Your task to perform on an android device: turn on translation in the chrome app Image 0: 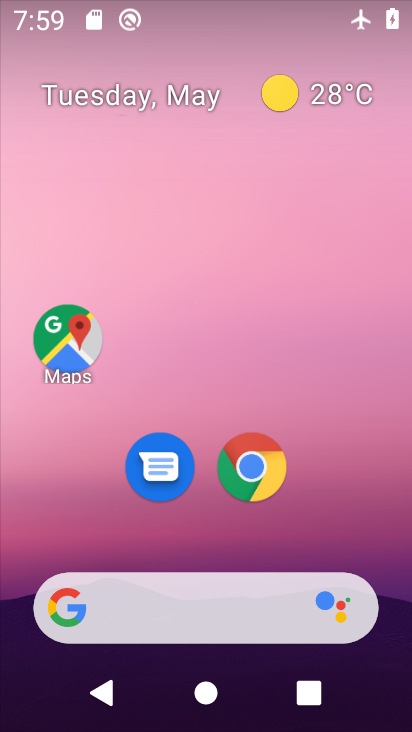
Step 0: click (261, 465)
Your task to perform on an android device: turn on translation in the chrome app Image 1: 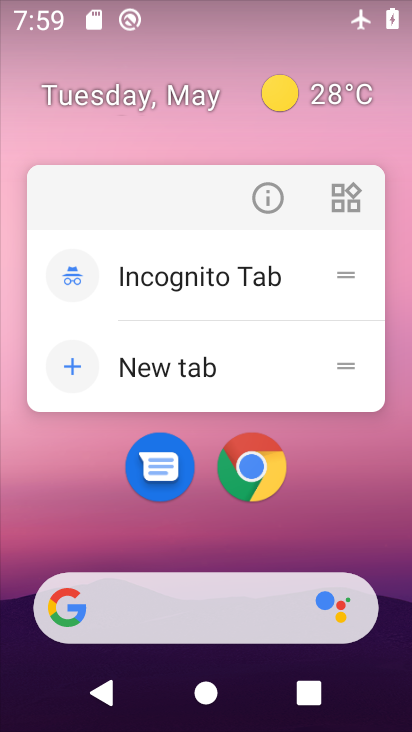
Step 1: click (263, 457)
Your task to perform on an android device: turn on translation in the chrome app Image 2: 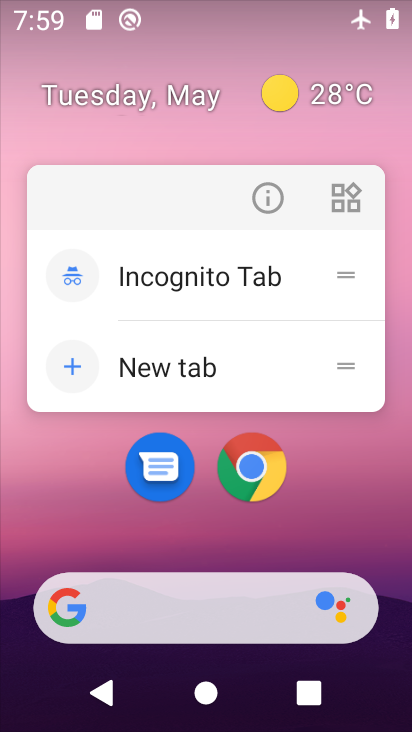
Step 2: click (265, 466)
Your task to perform on an android device: turn on translation in the chrome app Image 3: 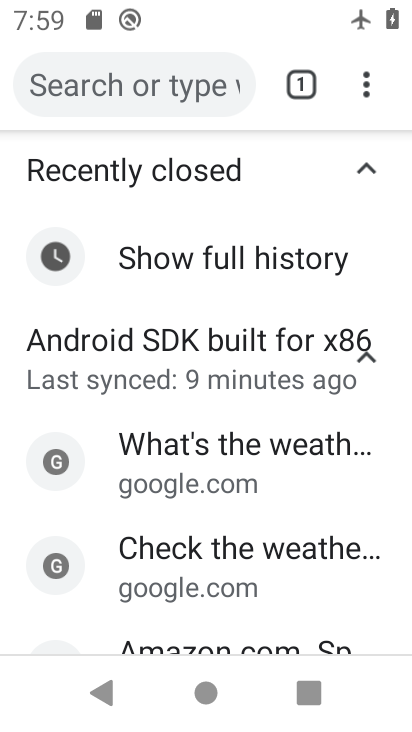
Step 3: click (364, 68)
Your task to perform on an android device: turn on translation in the chrome app Image 4: 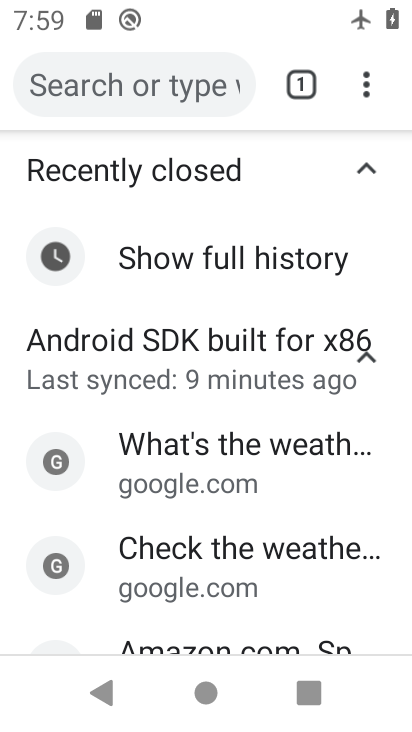
Step 4: click (363, 83)
Your task to perform on an android device: turn on translation in the chrome app Image 5: 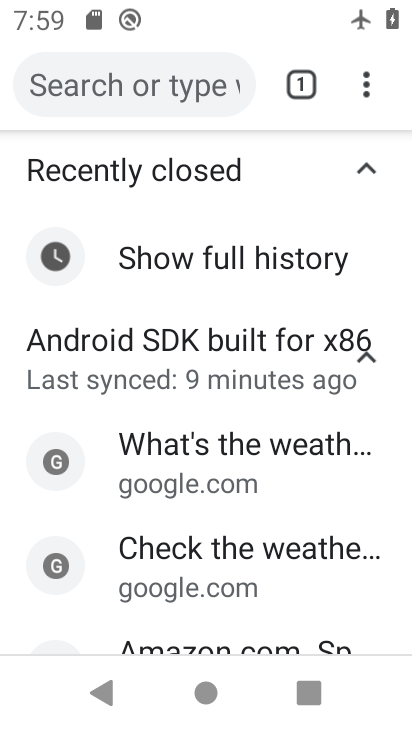
Step 5: press back button
Your task to perform on an android device: turn on translation in the chrome app Image 6: 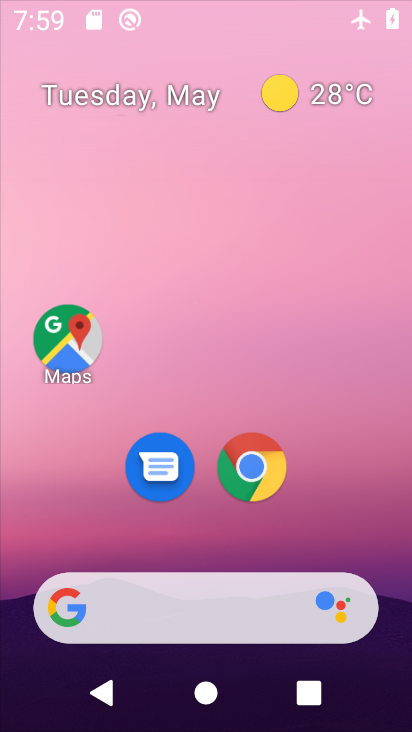
Step 6: click (238, 461)
Your task to perform on an android device: turn on translation in the chrome app Image 7: 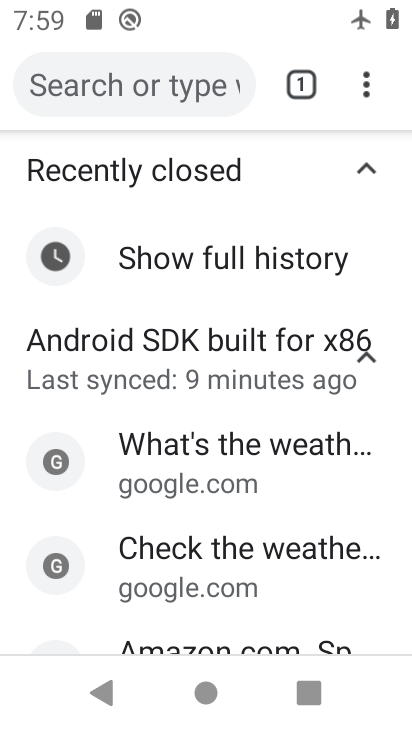
Step 7: click (365, 78)
Your task to perform on an android device: turn on translation in the chrome app Image 8: 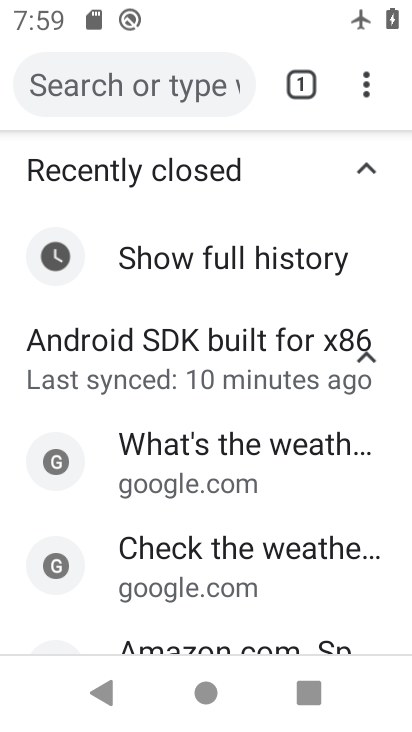
Step 8: click (367, 82)
Your task to perform on an android device: turn on translation in the chrome app Image 9: 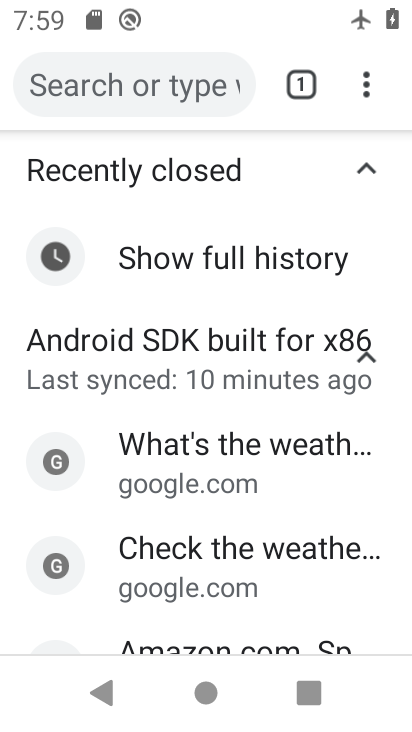
Step 9: click (357, 81)
Your task to perform on an android device: turn on translation in the chrome app Image 10: 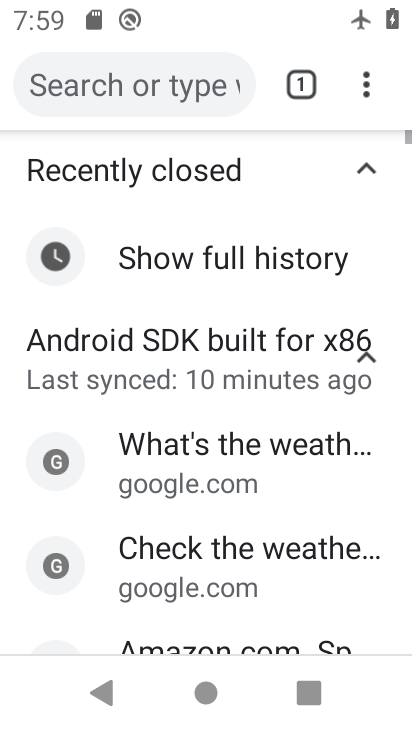
Step 10: click (366, 81)
Your task to perform on an android device: turn on translation in the chrome app Image 11: 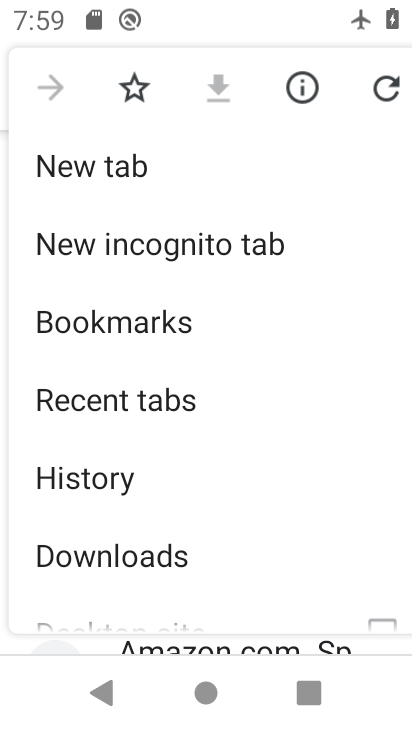
Step 11: drag from (332, 573) to (259, 240)
Your task to perform on an android device: turn on translation in the chrome app Image 12: 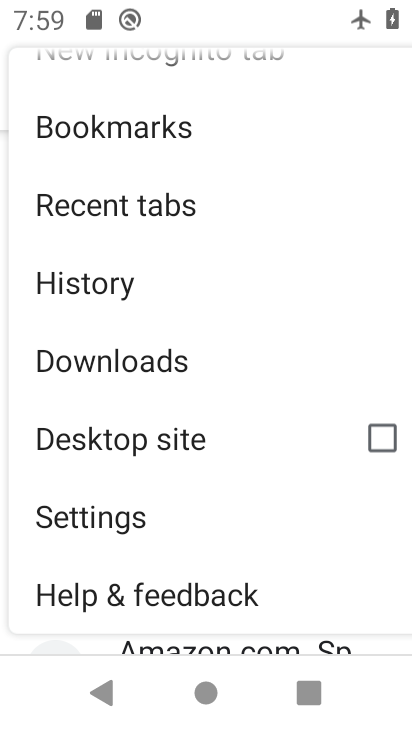
Step 12: click (134, 518)
Your task to perform on an android device: turn on translation in the chrome app Image 13: 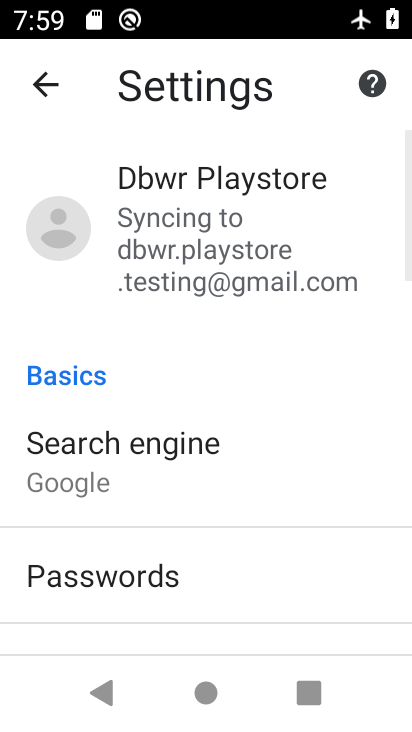
Step 13: drag from (330, 621) to (153, 16)
Your task to perform on an android device: turn on translation in the chrome app Image 14: 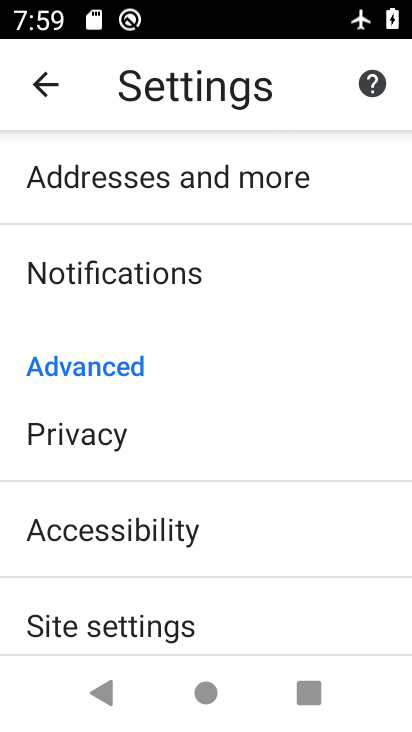
Step 14: drag from (319, 599) to (252, 321)
Your task to perform on an android device: turn on translation in the chrome app Image 15: 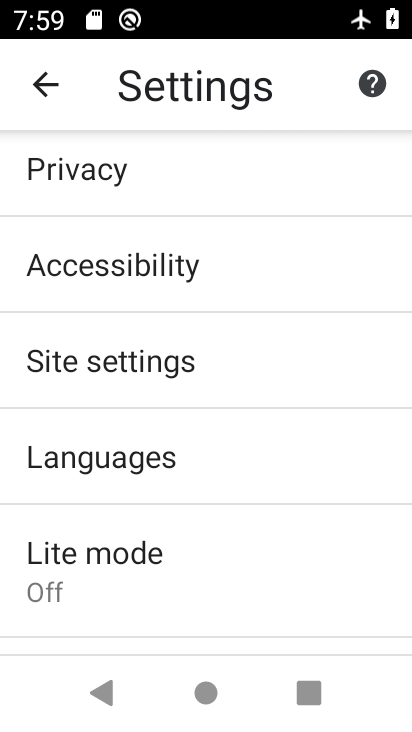
Step 15: click (130, 451)
Your task to perform on an android device: turn on translation in the chrome app Image 16: 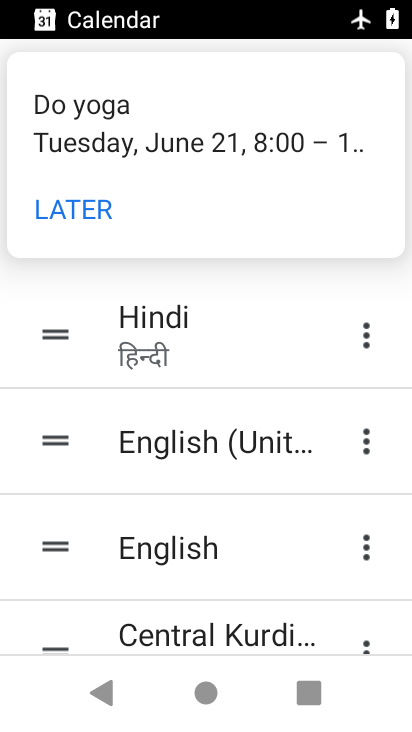
Step 16: drag from (255, 585) to (183, 236)
Your task to perform on an android device: turn on translation in the chrome app Image 17: 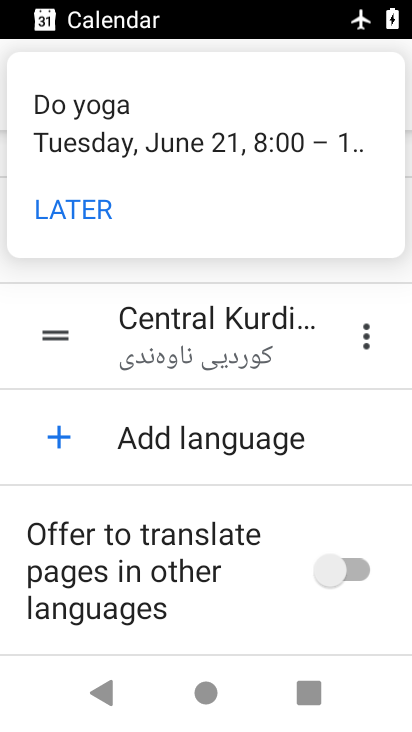
Step 17: click (365, 562)
Your task to perform on an android device: turn on translation in the chrome app Image 18: 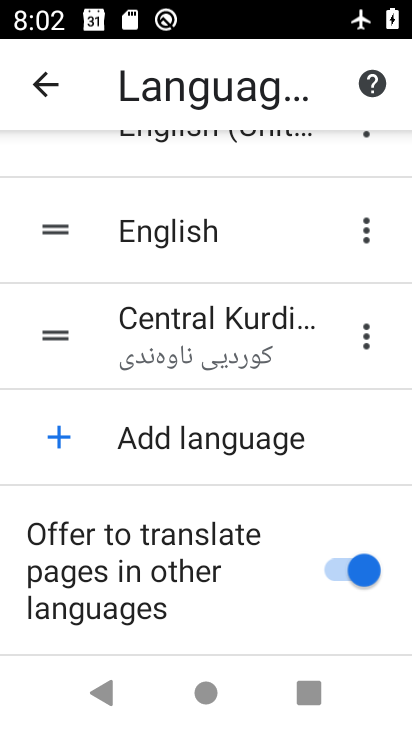
Step 18: task complete